Your task to perform on an android device: see creations saved in the google photos Image 0: 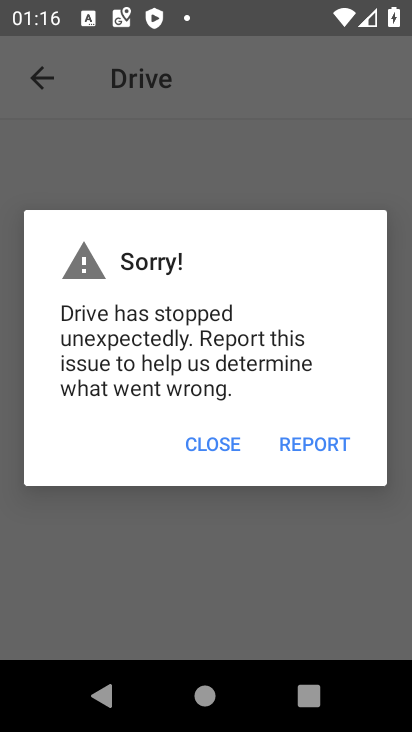
Step 0: press home button
Your task to perform on an android device: see creations saved in the google photos Image 1: 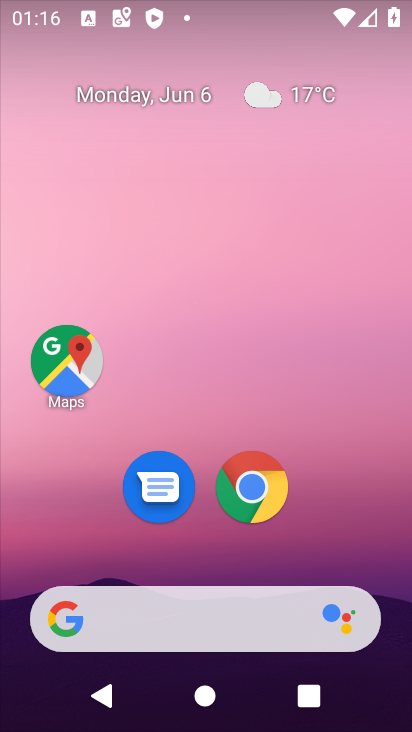
Step 1: drag from (397, 625) to (349, 118)
Your task to perform on an android device: see creations saved in the google photos Image 2: 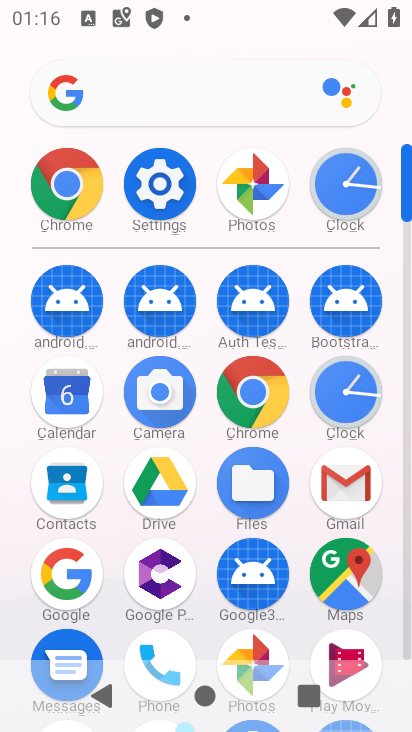
Step 2: click (410, 641)
Your task to perform on an android device: see creations saved in the google photos Image 3: 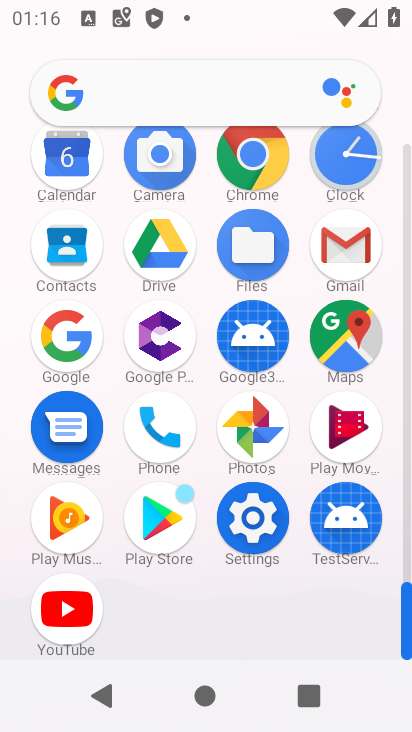
Step 3: click (254, 422)
Your task to perform on an android device: see creations saved in the google photos Image 4: 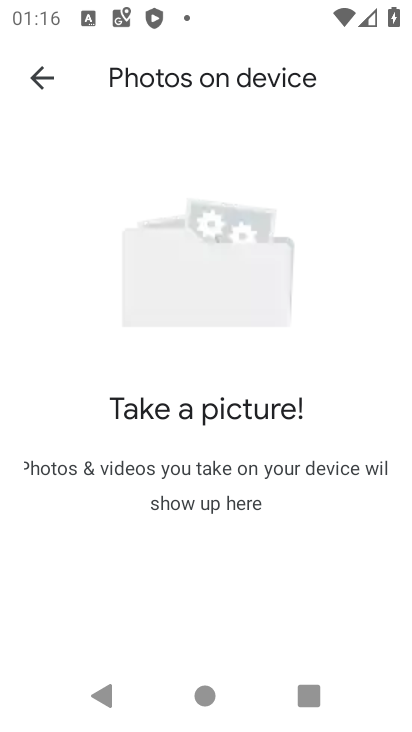
Step 4: task complete